Your task to perform on an android device: turn on priority inbox in the gmail app Image 0: 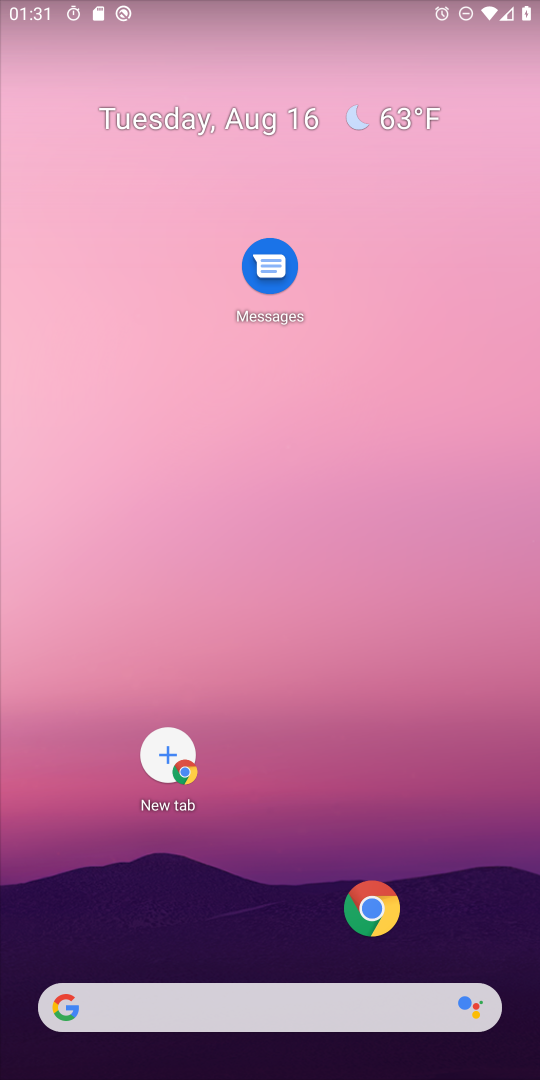
Step 0: drag from (296, 927) to (324, 99)
Your task to perform on an android device: turn on priority inbox in the gmail app Image 1: 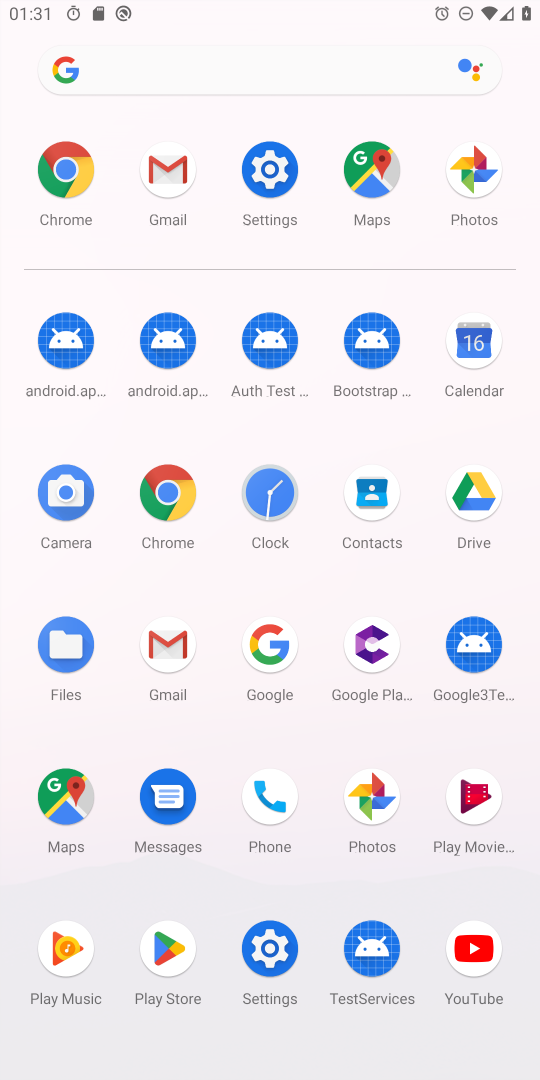
Step 1: click (158, 152)
Your task to perform on an android device: turn on priority inbox in the gmail app Image 2: 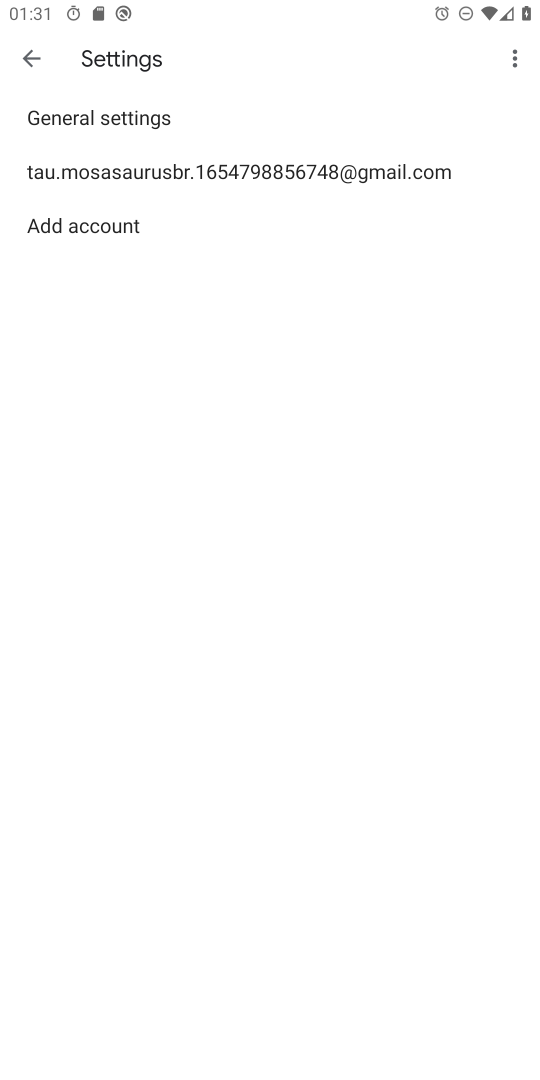
Step 2: click (158, 152)
Your task to perform on an android device: turn on priority inbox in the gmail app Image 3: 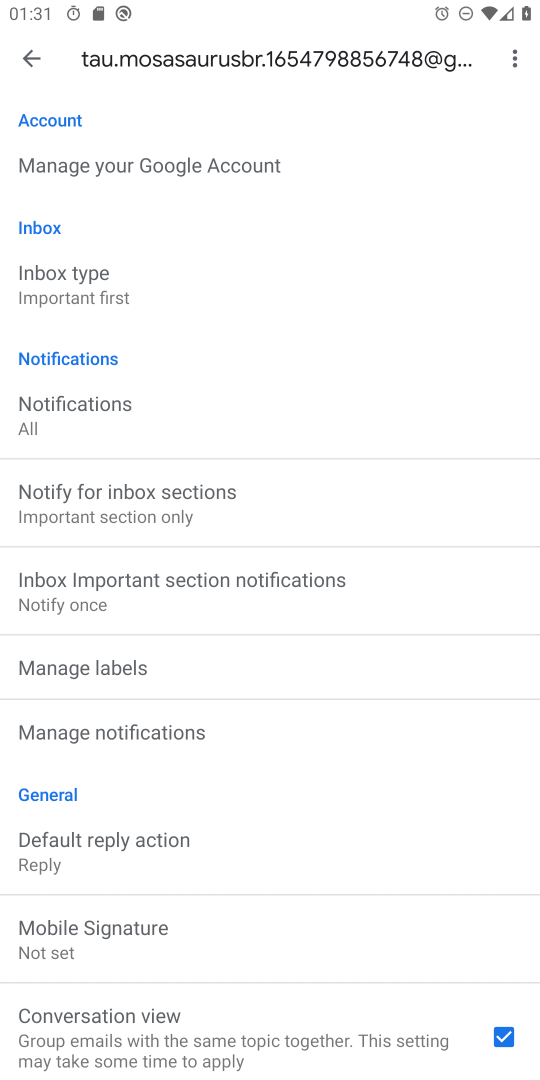
Step 3: click (97, 280)
Your task to perform on an android device: turn on priority inbox in the gmail app Image 4: 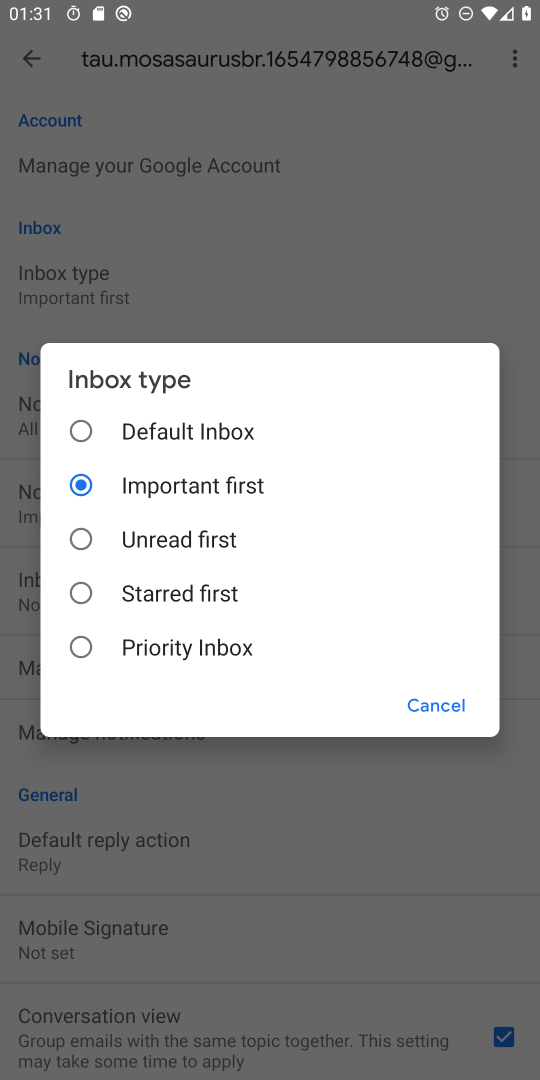
Step 4: click (196, 651)
Your task to perform on an android device: turn on priority inbox in the gmail app Image 5: 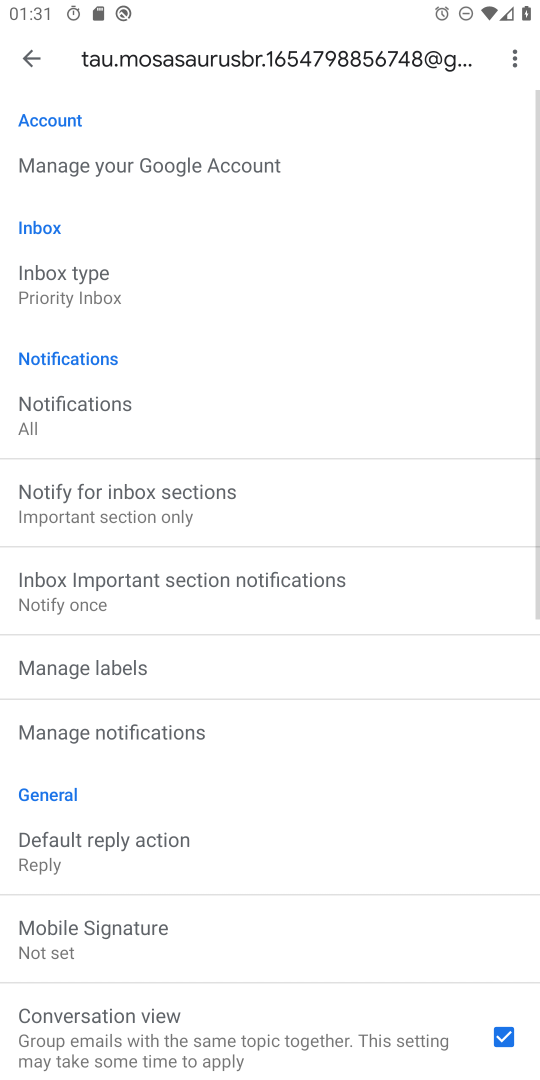
Step 5: task complete